Your task to perform on an android device: toggle location history Image 0: 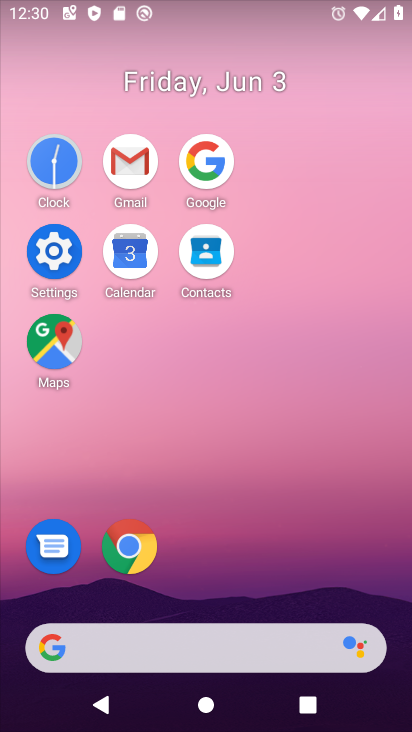
Step 0: click (58, 229)
Your task to perform on an android device: toggle location history Image 1: 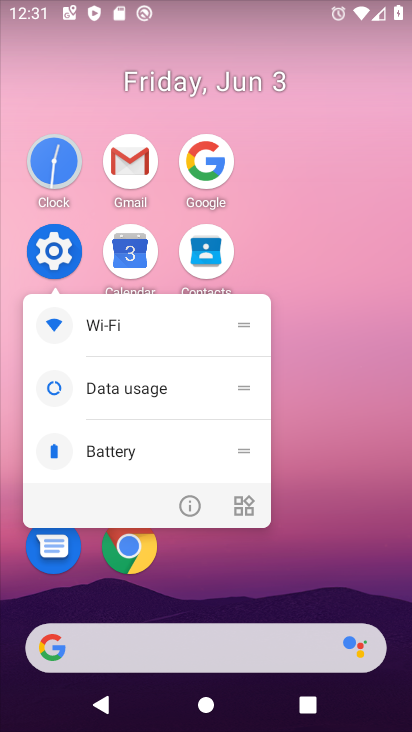
Step 1: click (45, 254)
Your task to perform on an android device: toggle location history Image 2: 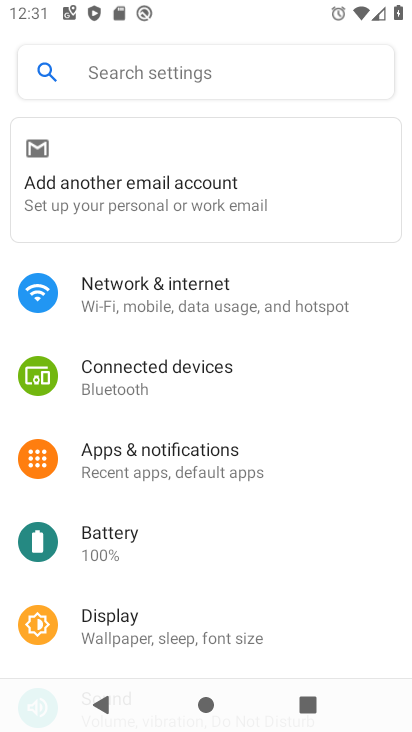
Step 2: drag from (243, 608) to (293, 224)
Your task to perform on an android device: toggle location history Image 3: 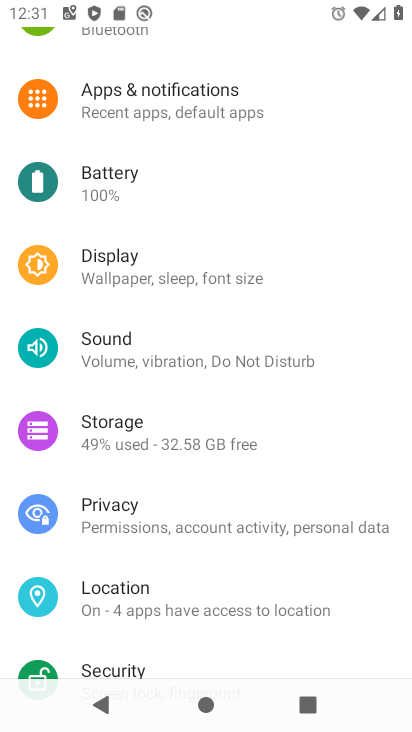
Step 3: drag from (217, 591) to (223, 158)
Your task to perform on an android device: toggle location history Image 4: 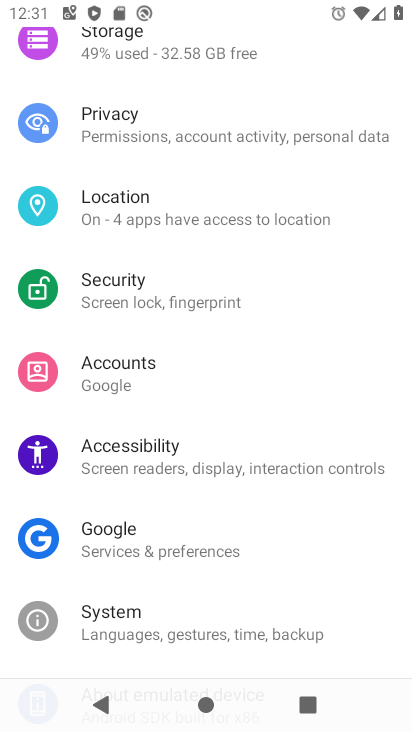
Step 4: click (244, 204)
Your task to perform on an android device: toggle location history Image 5: 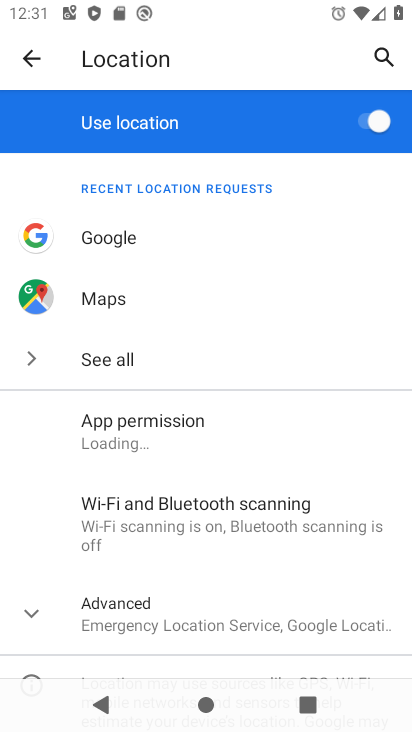
Step 5: click (228, 594)
Your task to perform on an android device: toggle location history Image 6: 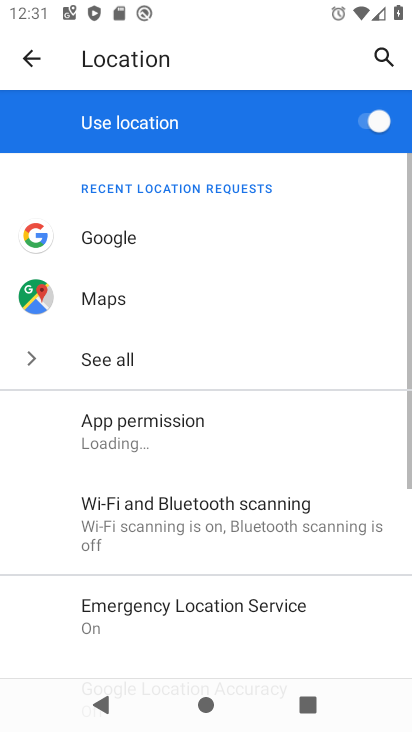
Step 6: drag from (226, 587) to (318, 174)
Your task to perform on an android device: toggle location history Image 7: 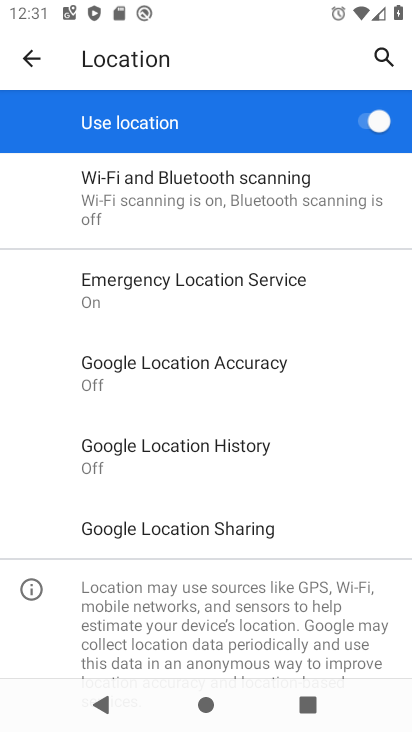
Step 7: click (190, 456)
Your task to perform on an android device: toggle location history Image 8: 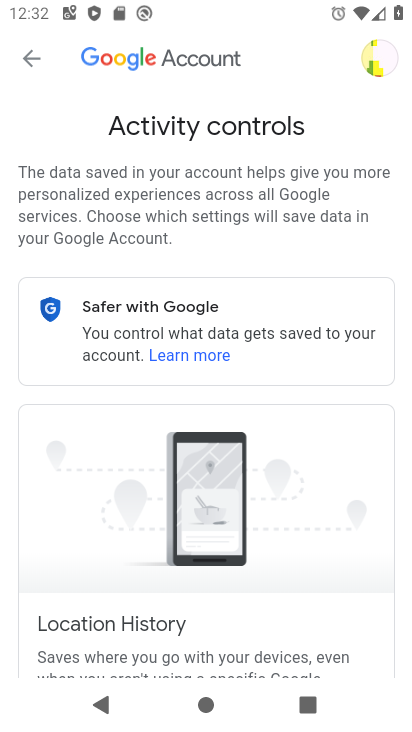
Step 8: drag from (309, 538) to (231, 145)
Your task to perform on an android device: toggle location history Image 9: 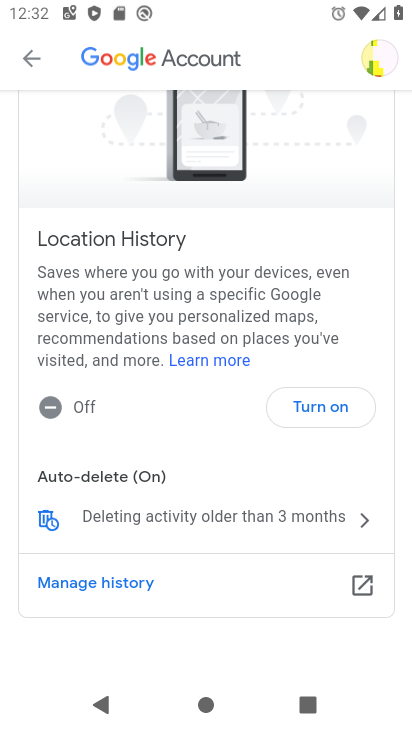
Step 9: click (328, 415)
Your task to perform on an android device: toggle location history Image 10: 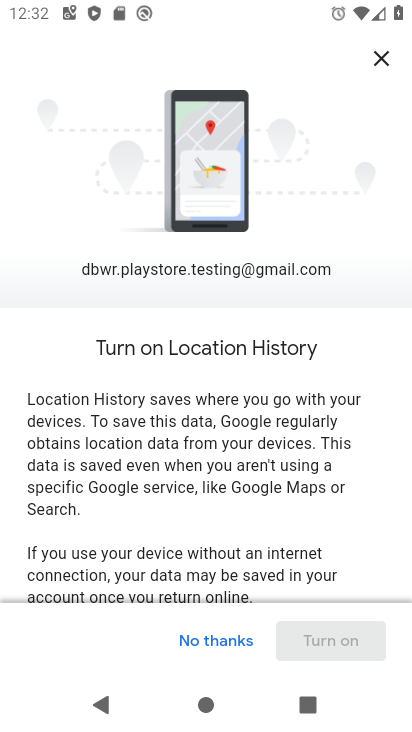
Step 10: drag from (275, 524) to (234, 120)
Your task to perform on an android device: toggle location history Image 11: 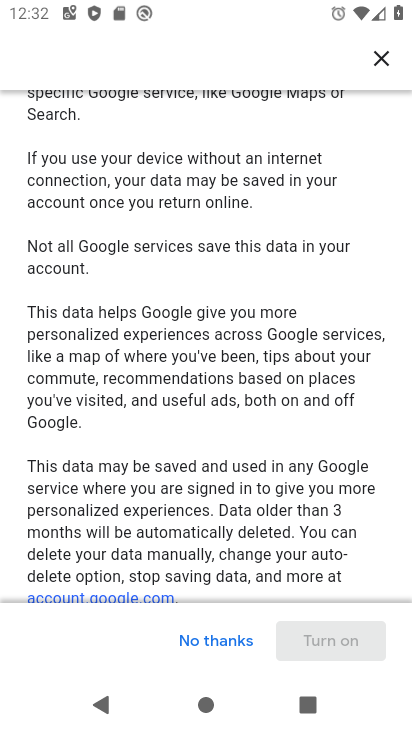
Step 11: drag from (264, 548) to (259, 35)
Your task to perform on an android device: toggle location history Image 12: 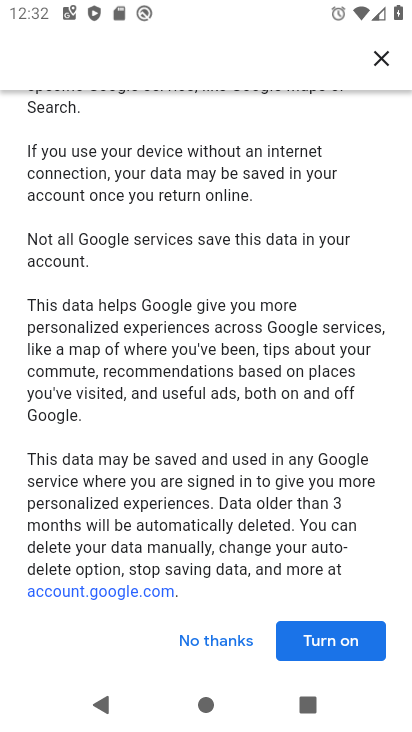
Step 12: click (345, 635)
Your task to perform on an android device: toggle location history Image 13: 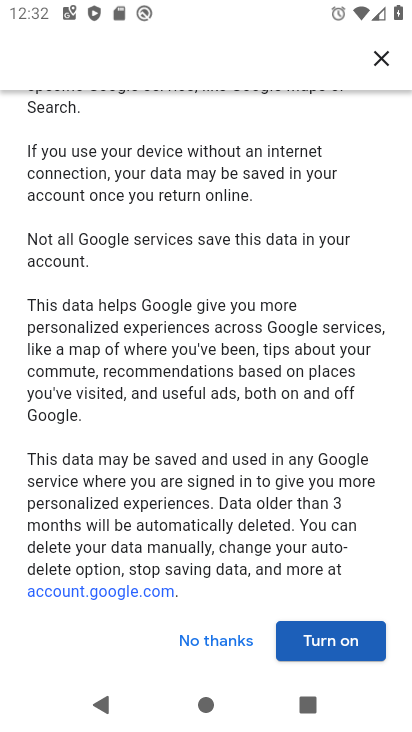
Step 13: click (352, 649)
Your task to perform on an android device: toggle location history Image 14: 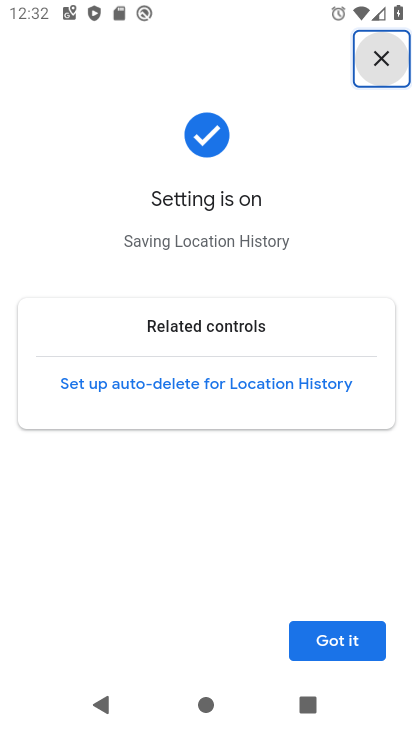
Step 14: click (352, 649)
Your task to perform on an android device: toggle location history Image 15: 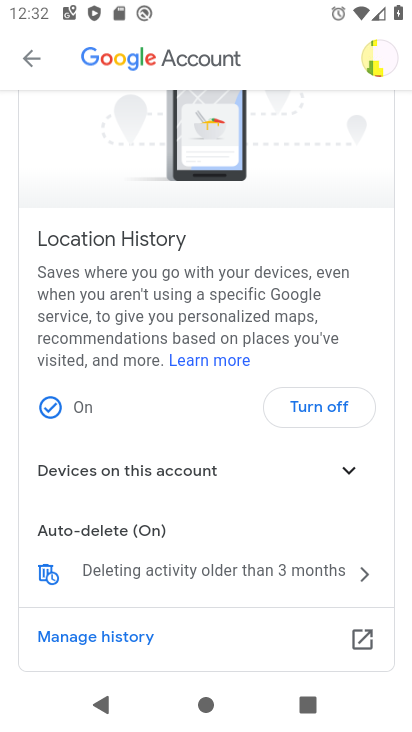
Step 15: task complete